Your task to perform on an android device: set the timer Image 0: 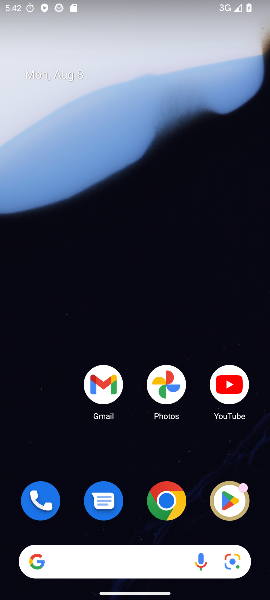
Step 0: drag from (24, 572) to (148, 268)
Your task to perform on an android device: set the timer Image 1: 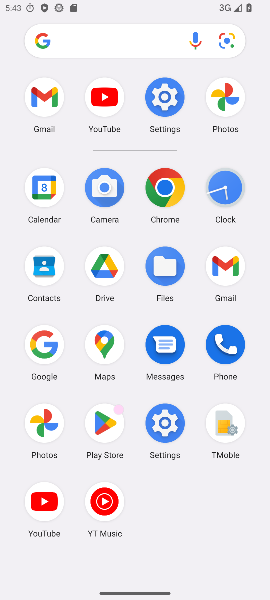
Step 1: click (216, 213)
Your task to perform on an android device: set the timer Image 2: 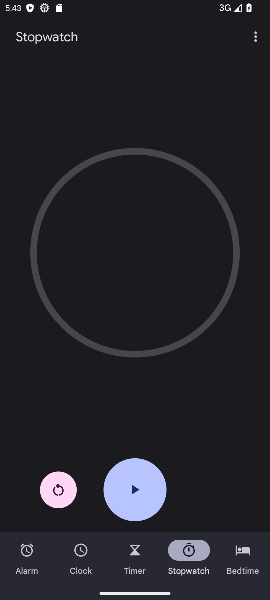
Step 2: click (128, 556)
Your task to perform on an android device: set the timer Image 3: 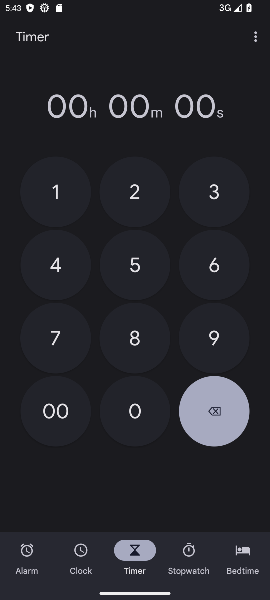
Step 3: click (182, 244)
Your task to perform on an android device: set the timer Image 4: 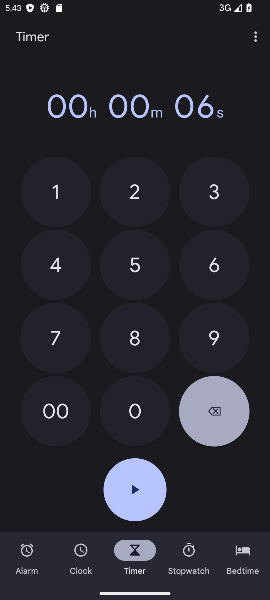
Step 4: click (40, 246)
Your task to perform on an android device: set the timer Image 5: 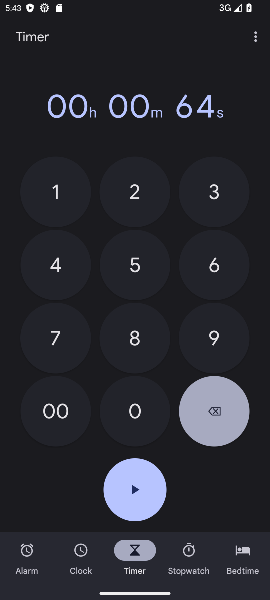
Step 5: click (158, 477)
Your task to perform on an android device: set the timer Image 6: 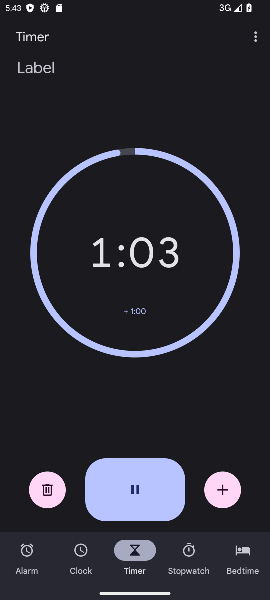
Step 6: click (138, 497)
Your task to perform on an android device: set the timer Image 7: 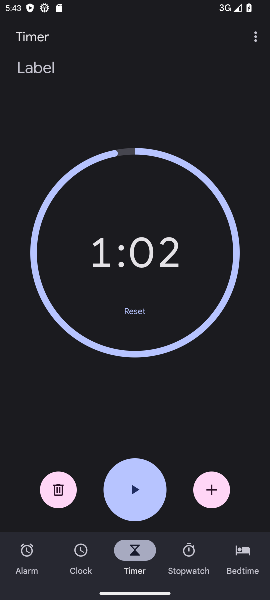
Step 7: task complete